Your task to perform on an android device: Open settings on Google Maps Image 0: 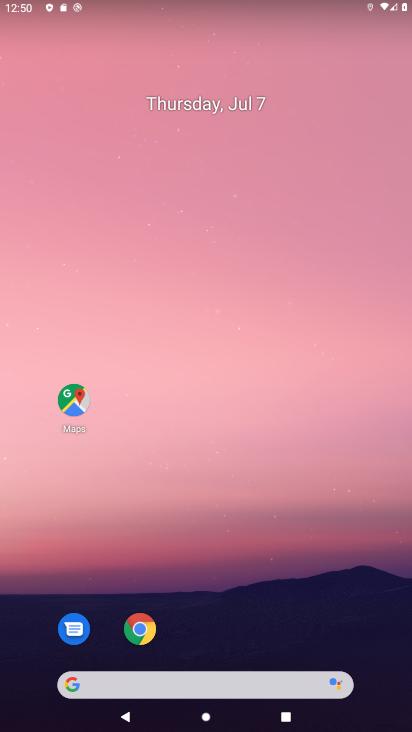
Step 0: drag from (206, 638) to (223, 145)
Your task to perform on an android device: Open settings on Google Maps Image 1: 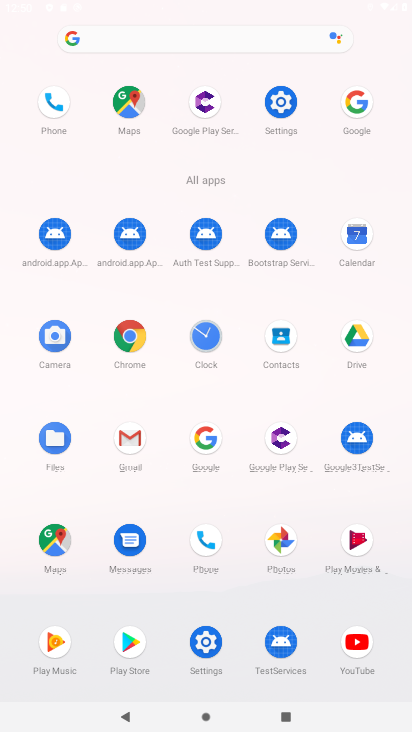
Step 1: click (54, 537)
Your task to perform on an android device: Open settings on Google Maps Image 2: 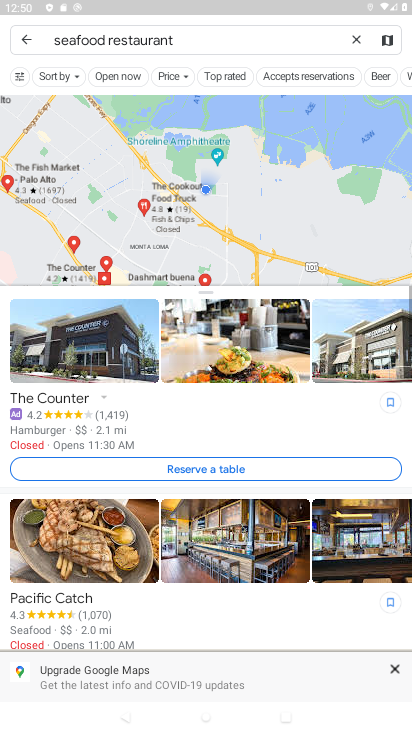
Step 2: click (353, 39)
Your task to perform on an android device: Open settings on Google Maps Image 3: 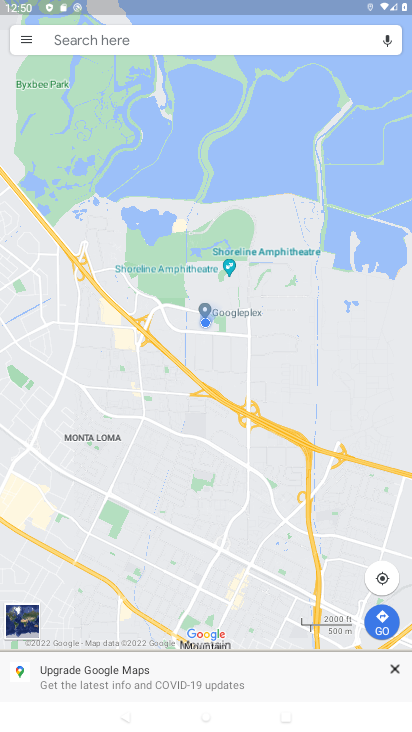
Step 3: click (28, 42)
Your task to perform on an android device: Open settings on Google Maps Image 4: 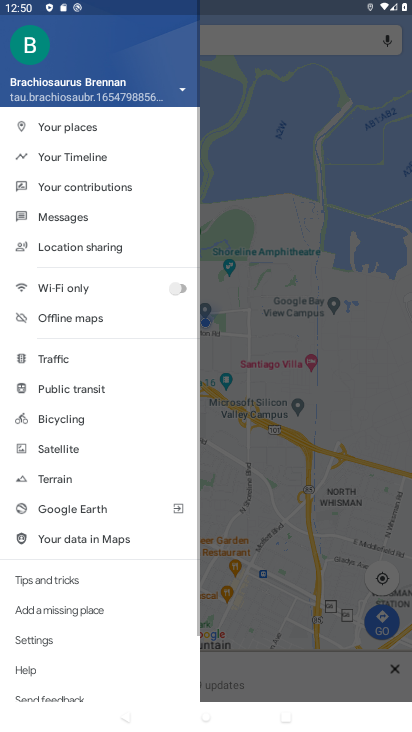
Step 4: click (42, 638)
Your task to perform on an android device: Open settings on Google Maps Image 5: 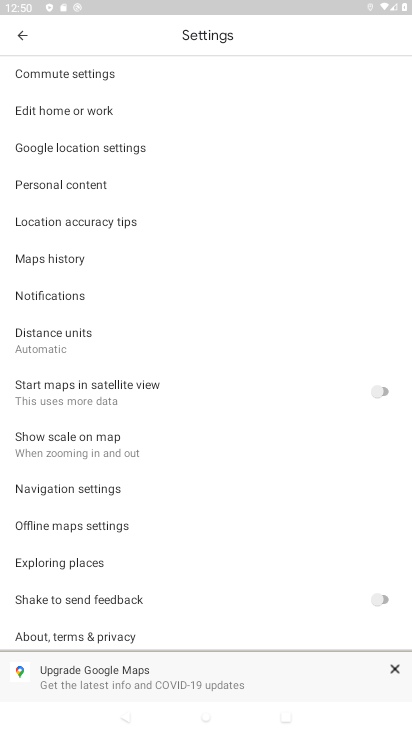
Step 5: task complete